Your task to perform on an android device: Open Chrome and go to the settings page Image 0: 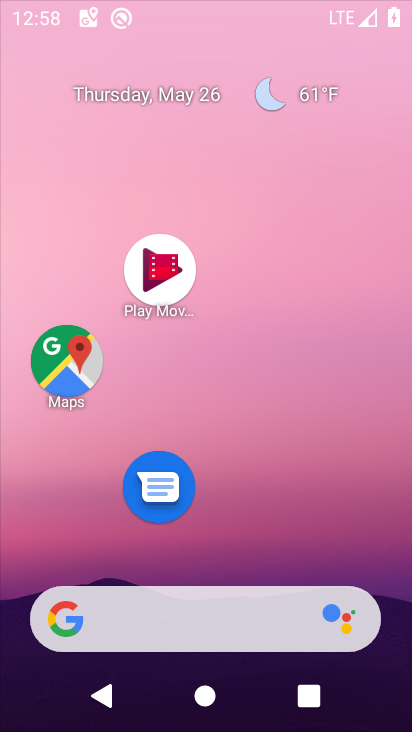
Step 0: drag from (259, 436) to (181, 88)
Your task to perform on an android device: Open Chrome and go to the settings page Image 1: 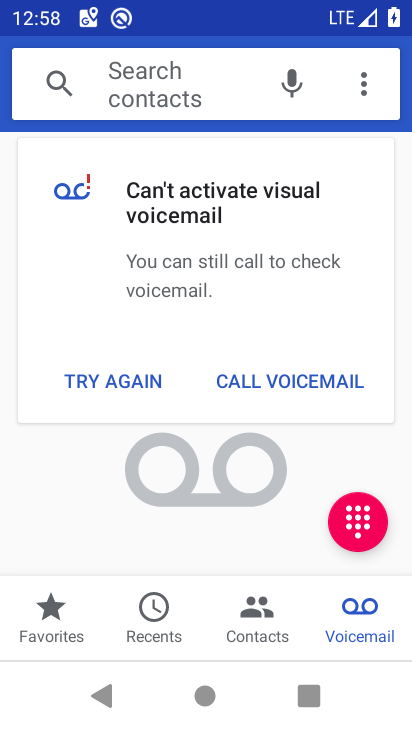
Step 1: press back button
Your task to perform on an android device: Open Chrome and go to the settings page Image 2: 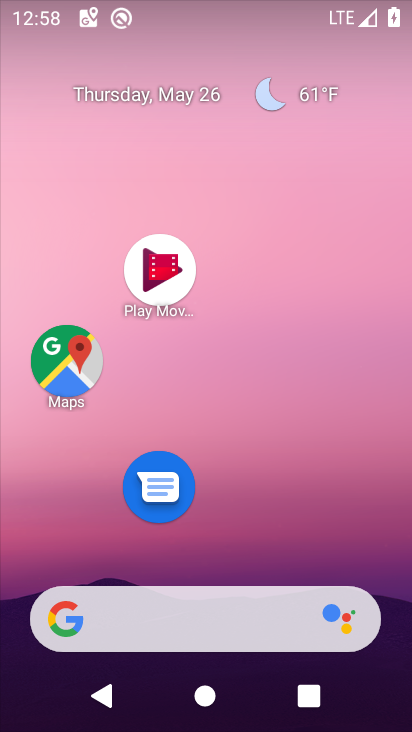
Step 2: drag from (345, 680) to (187, 165)
Your task to perform on an android device: Open Chrome and go to the settings page Image 3: 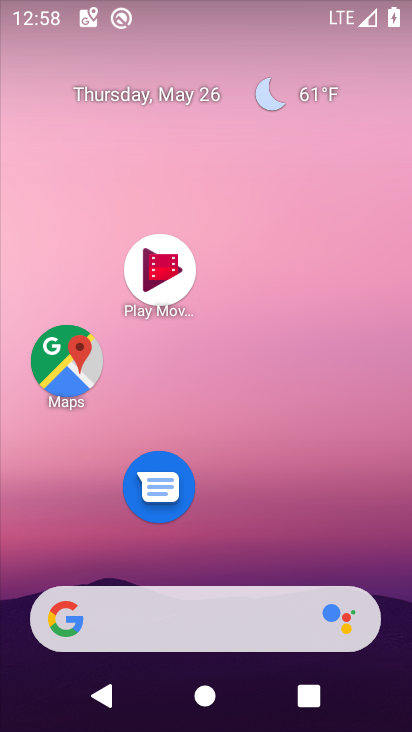
Step 3: drag from (267, 682) to (131, 154)
Your task to perform on an android device: Open Chrome and go to the settings page Image 4: 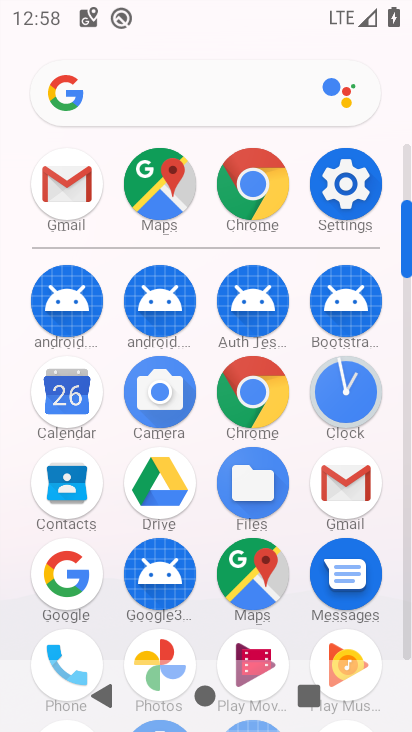
Step 4: click (347, 183)
Your task to perform on an android device: Open Chrome and go to the settings page Image 5: 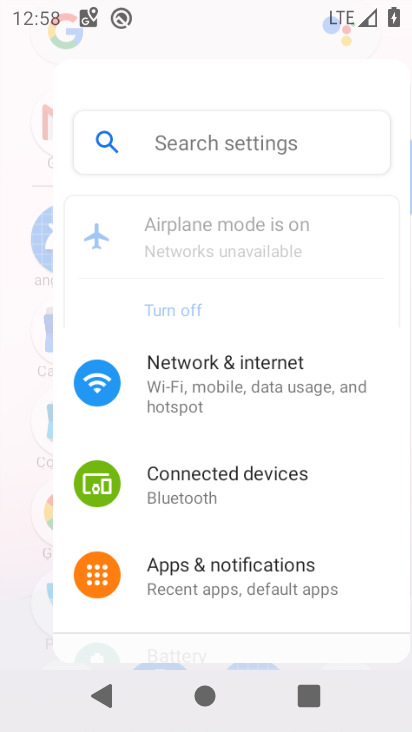
Step 5: click (347, 183)
Your task to perform on an android device: Open Chrome and go to the settings page Image 6: 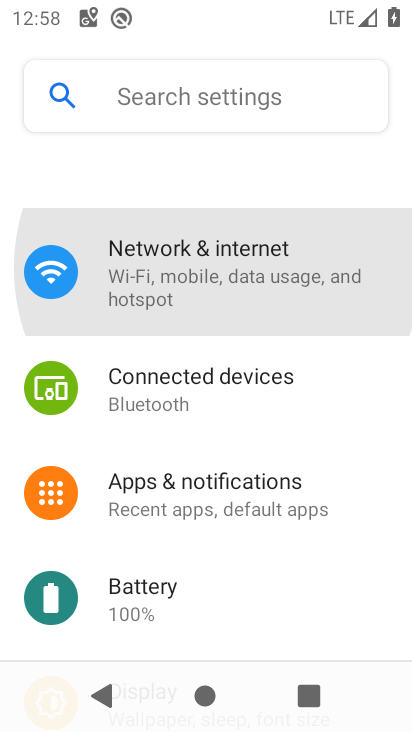
Step 6: click (345, 185)
Your task to perform on an android device: Open Chrome and go to the settings page Image 7: 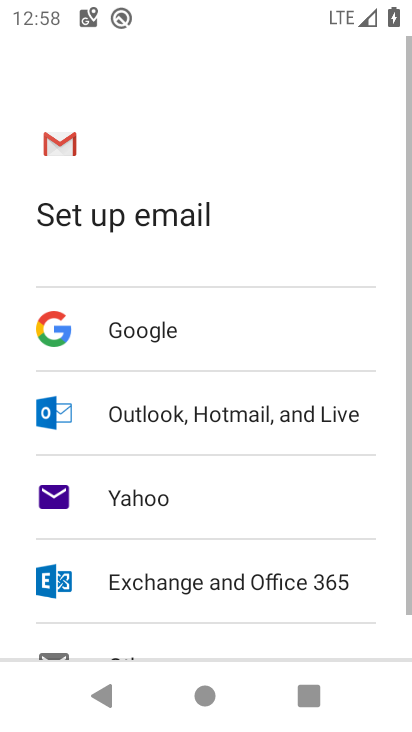
Step 7: press back button
Your task to perform on an android device: Open Chrome and go to the settings page Image 8: 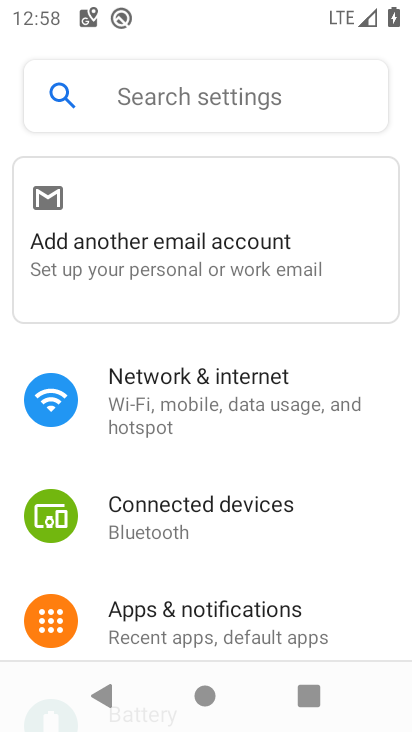
Step 8: press home button
Your task to perform on an android device: Open Chrome and go to the settings page Image 9: 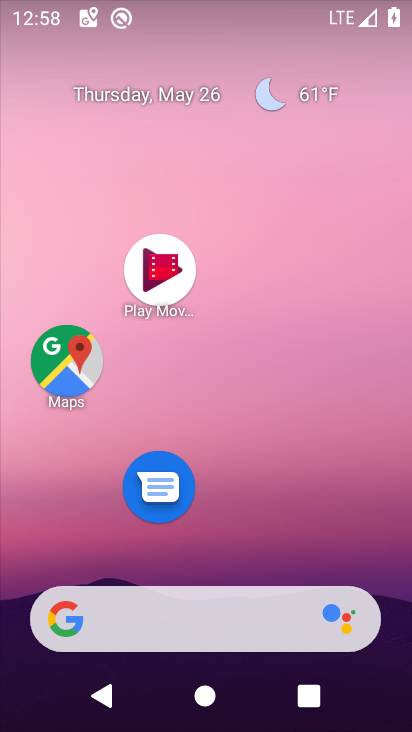
Step 9: drag from (270, 691) to (229, 113)
Your task to perform on an android device: Open Chrome and go to the settings page Image 10: 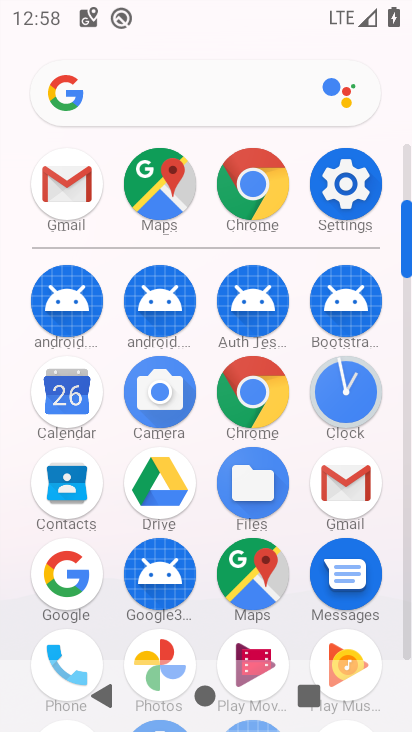
Step 10: click (331, 182)
Your task to perform on an android device: Open Chrome and go to the settings page Image 11: 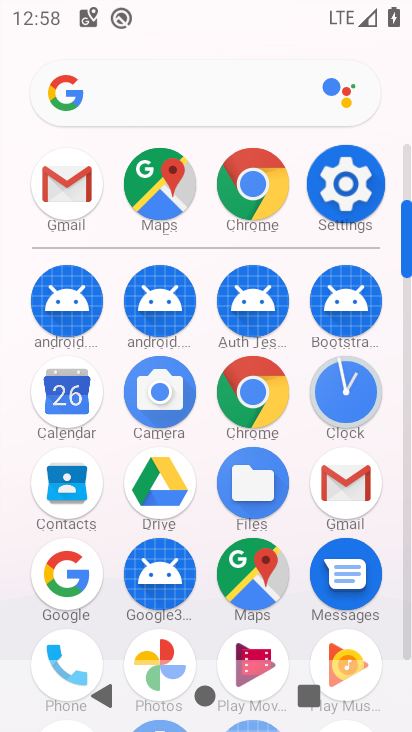
Step 11: click (332, 181)
Your task to perform on an android device: Open Chrome and go to the settings page Image 12: 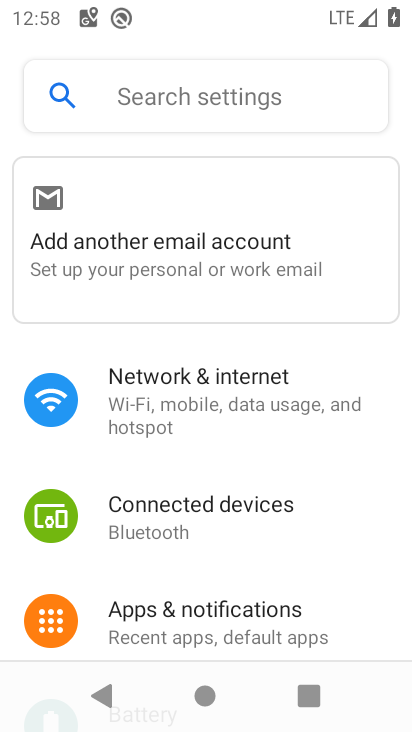
Step 12: drag from (232, 609) to (104, 183)
Your task to perform on an android device: Open Chrome and go to the settings page Image 13: 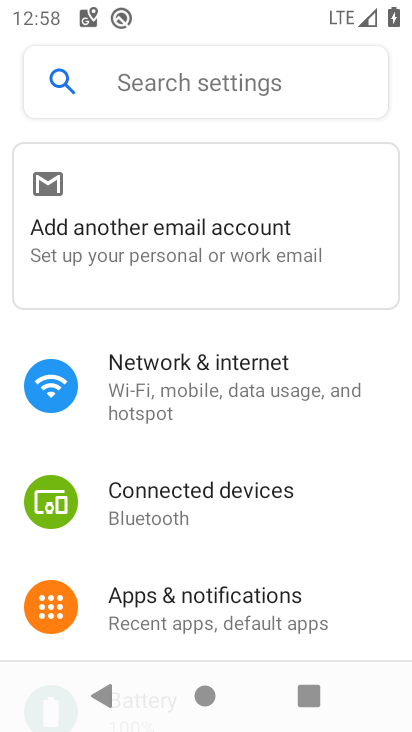
Step 13: drag from (250, 520) to (174, 167)
Your task to perform on an android device: Open Chrome and go to the settings page Image 14: 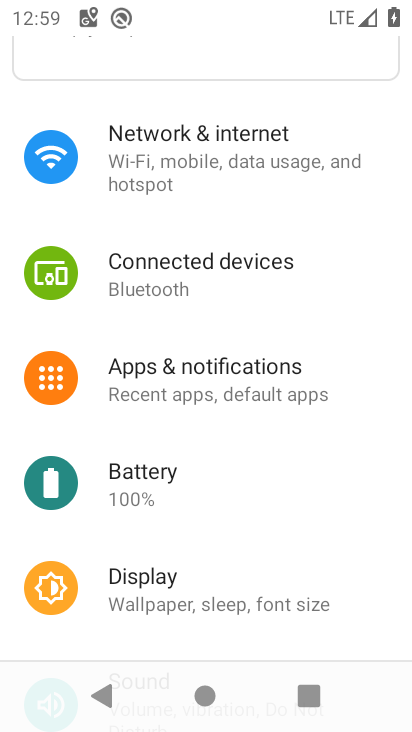
Step 14: press back button
Your task to perform on an android device: Open Chrome and go to the settings page Image 15: 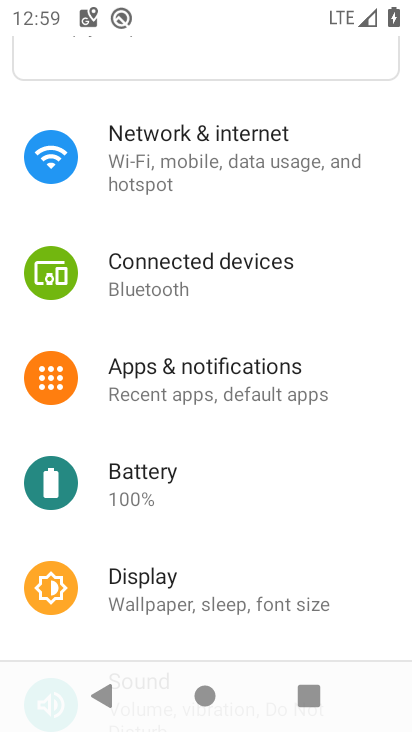
Step 15: press back button
Your task to perform on an android device: Open Chrome and go to the settings page Image 16: 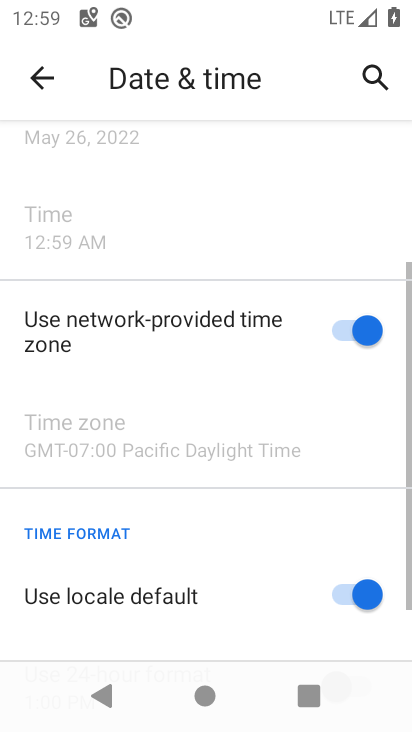
Step 16: press back button
Your task to perform on an android device: Open Chrome and go to the settings page Image 17: 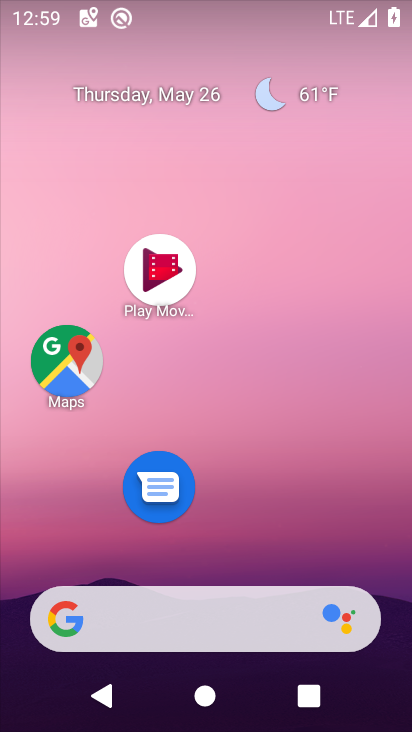
Step 17: click (127, 0)
Your task to perform on an android device: Open Chrome and go to the settings page Image 18: 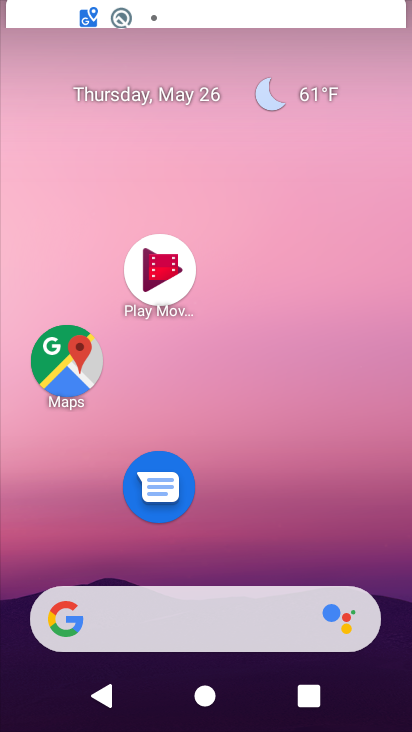
Step 18: drag from (329, 562) to (155, 2)
Your task to perform on an android device: Open Chrome and go to the settings page Image 19: 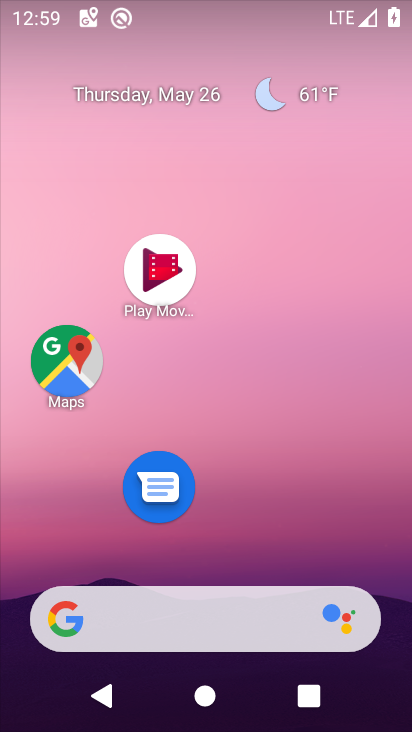
Step 19: drag from (182, 206) to (150, 69)
Your task to perform on an android device: Open Chrome and go to the settings page Image 20: 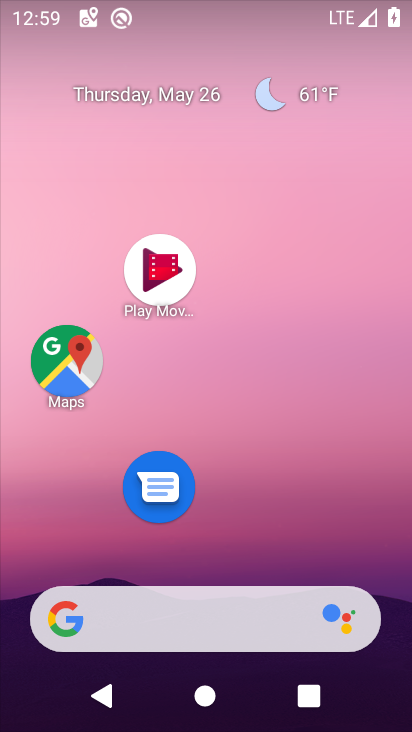
Step 20: drag from (328, 486) to (183, 6)
Your task to perform on an android device: Open Chrome and go to the settings page Image 21: 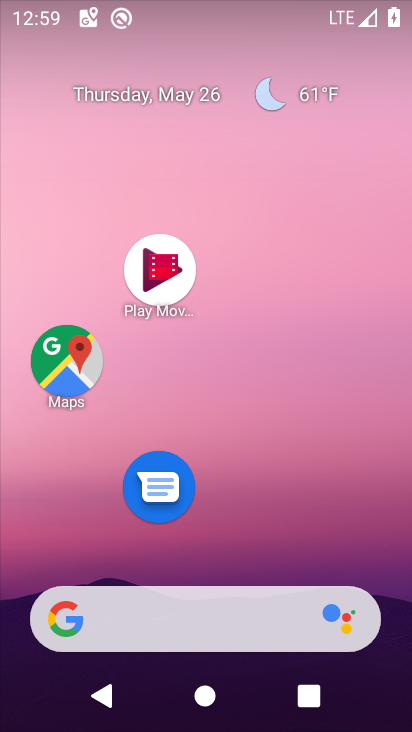
Step 21: press home button
Your task to perform on an android device: Open Chrome and go to the settings page Image 22: 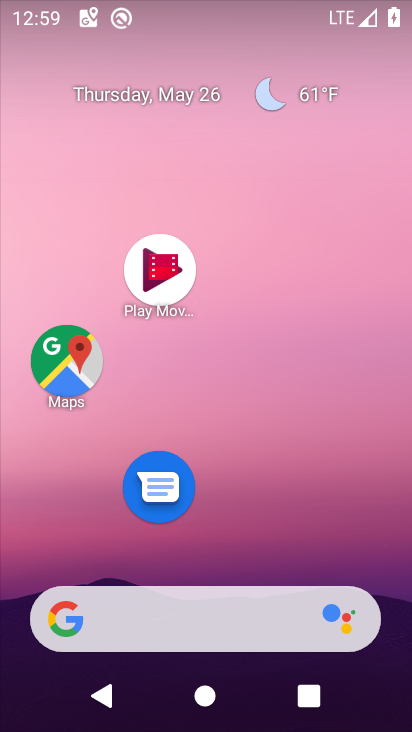
Step 22: press home button
Your task to perform on an android device: Open Chrome and go to the settings page Image 23: 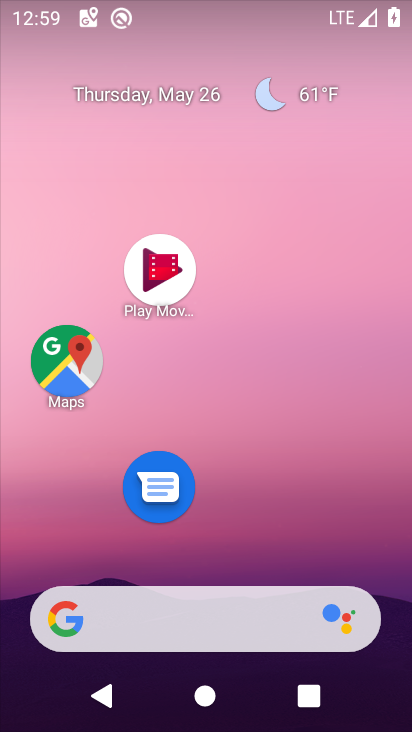
Step 23: press back button
Your task to perform on an android device: Open Chrome and go to the settings page Image 24: 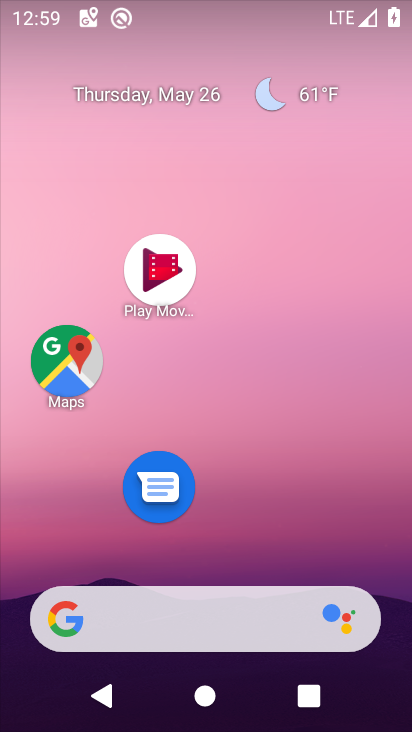
Step 24: press back button
Your task to perform on an android device: Open Chrome and go to the settings page Image 25: 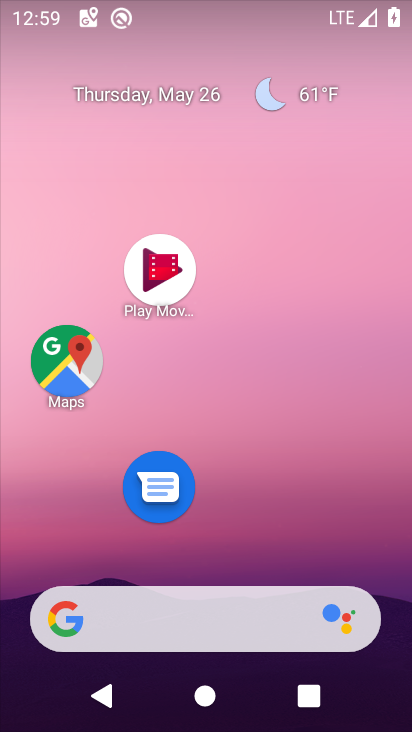
Step 25: drag from (353, 618) to (191, 90)
Your task to perform on an android device: Open Chrome and go to the settings page Image 26: 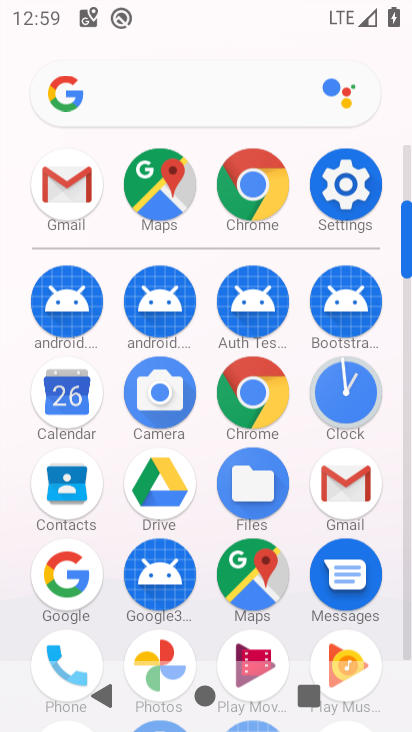
Step 26: drag from (345, 513) to (167, 243)
Your task to perform on an android device: Open Chrome and go to the settings page Image 27: 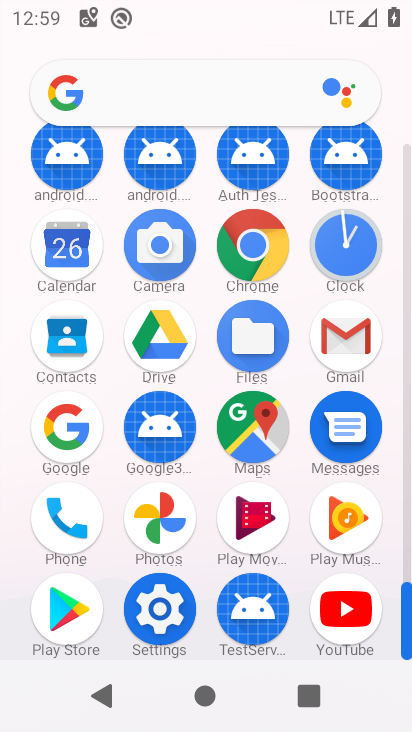
Step 27: click (258, 252)
Your task to perform on an android device: Open Chrome and go to the settings page Image 28: 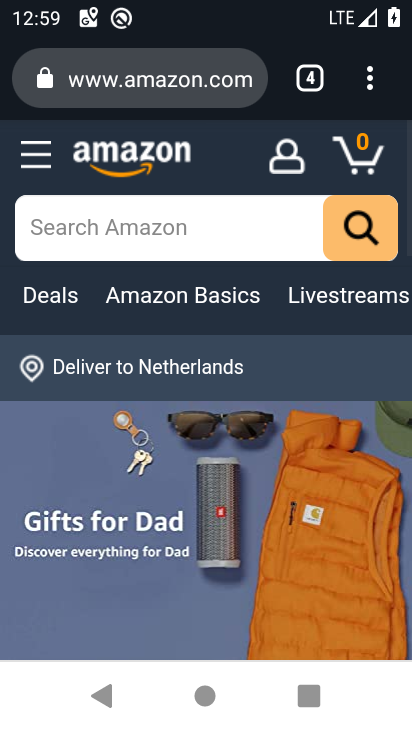
Step 28: drag from (366, 76) to (92, 553)
Your task to perform on an android device: Open Chrome and go to the settings page Image 29: 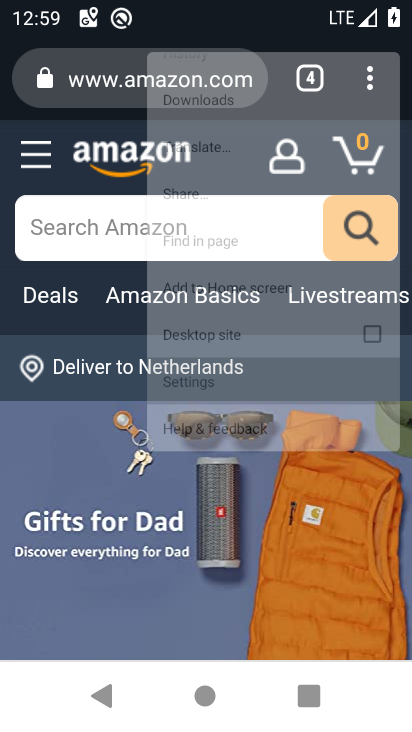
Step 29: click (92, 553)
Your task to perform on an android device: Open Chrome and go to the settings page Image 30: 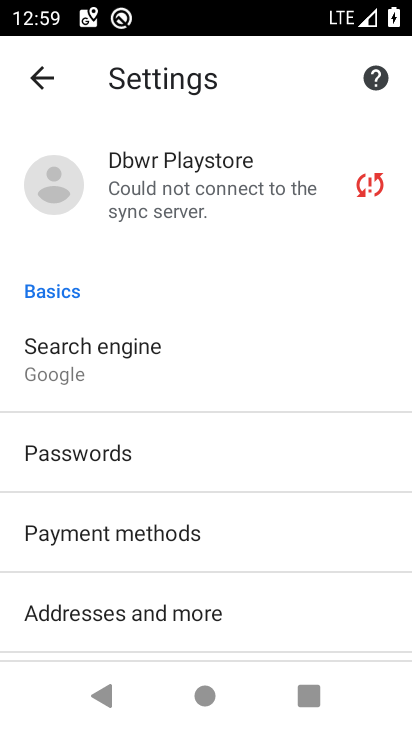
Step 30: task complete